Your task to perform on an android device: turn on priority inbox in the gmail app Image 0: 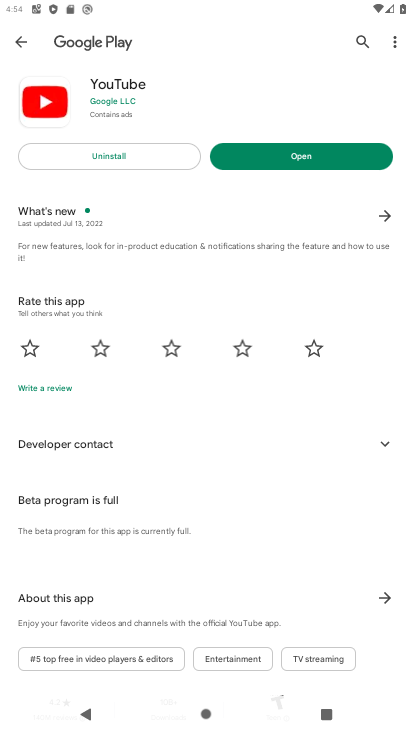
Step 0: press home button
Your task to perform on an android device: turn on priority inbox in the gmail app Image 1: 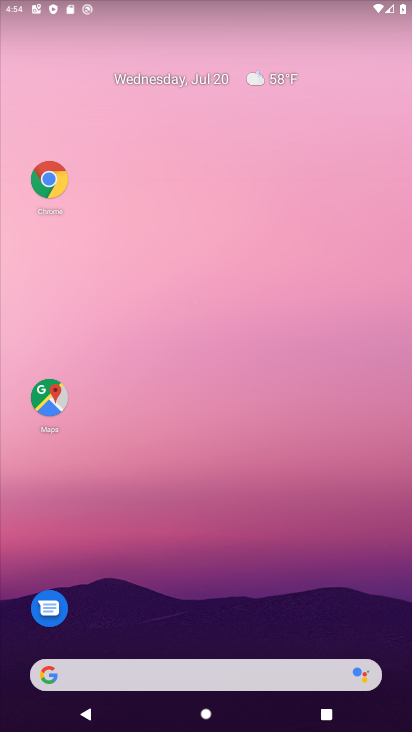
Step 1: drag from (222, 641) to (84, 138)
Your task to perform on an android device: turn on priority inbox in the gmail app Image 2: 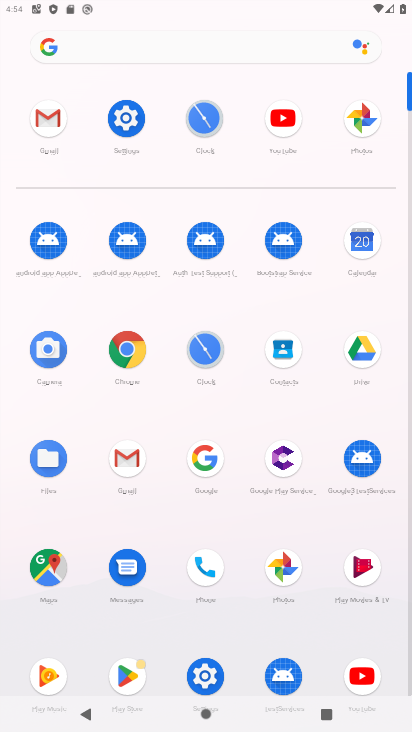
Step 2: click (132, 472)
Your task to perform on an android device: turn on priority inbox in the gmail app Image 3: 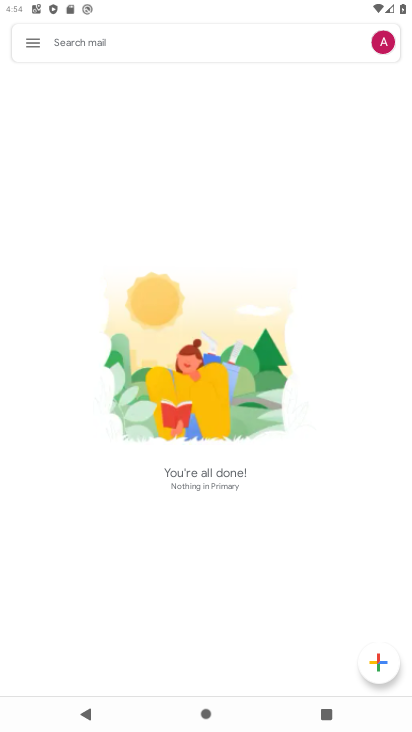
Step 3: click (35, 35)
Your task to perform on an android device: turn on priority inbox in the gmail app Image 4: 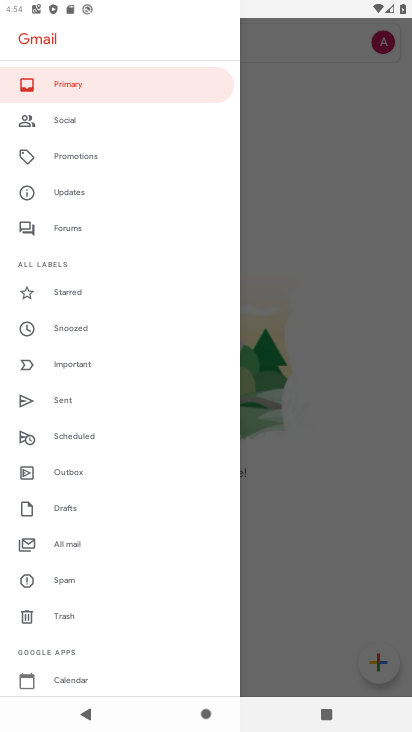
Step 4: drag from (82, 592) to (18, 134)
Your task to perform on an android device: turn on priority inbox in the gmail app Image 5: 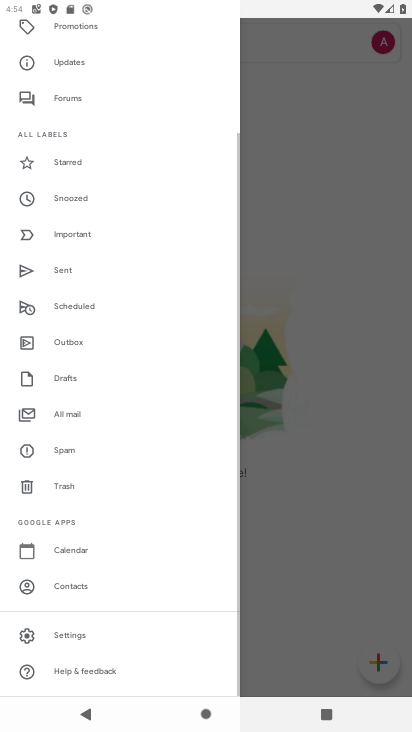
Step 5: click (72, 643)
Your task to perform on an android device: turn on priority inbox in the gmail app Image 6: 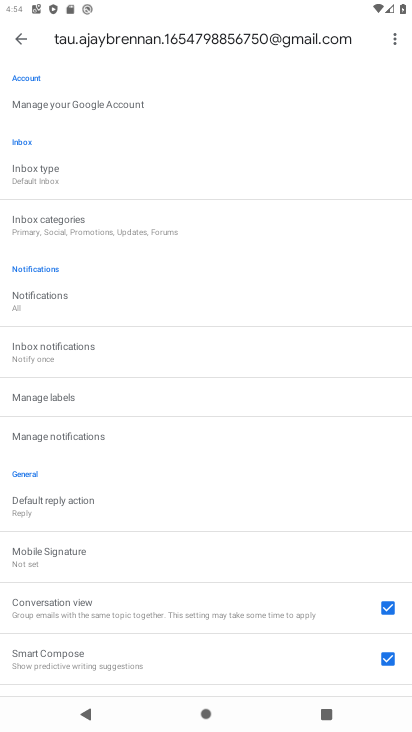
Step 6: drag from (177, 583) to (115, 388)
Your task to perform on an android device: turn on priority inbox in the gmail app Image 7: 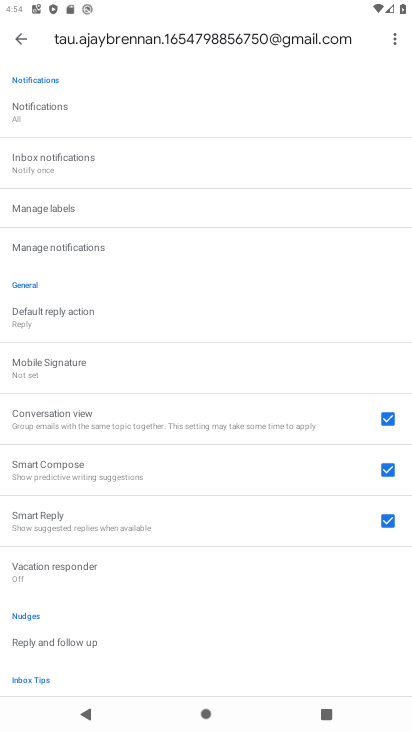
Step 7: drag from (60, 151) to (36, 564)
Your task to perform on an android device: turn on priority inbox in the gmail app Image 8: 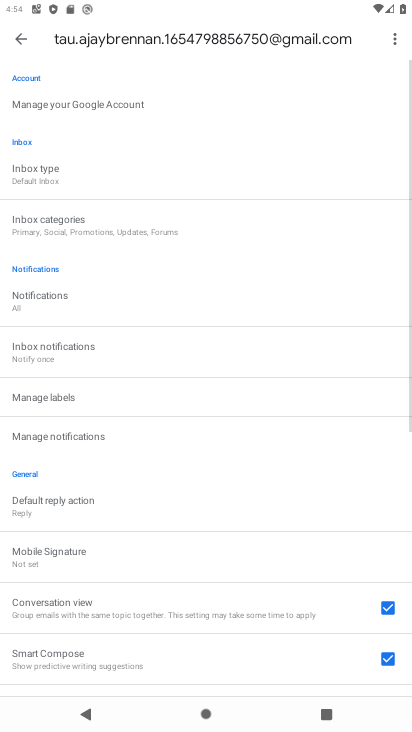
Step 8: click (24, 186)
Your task to perform on an android device: turn on priority inbox in the gmail app Image 9: 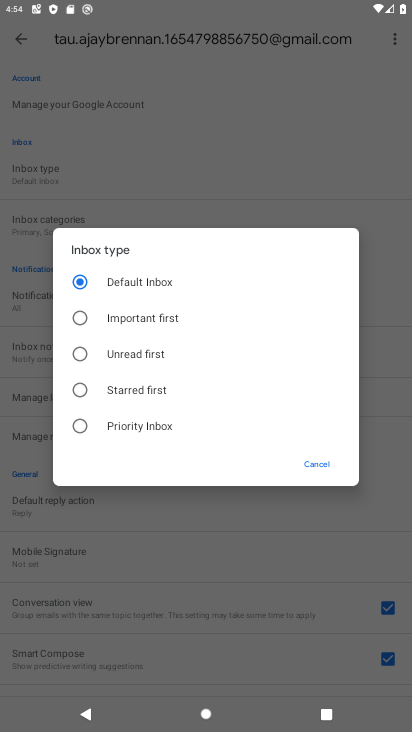
Step 9: click (109, 431)
Your task to perform on an android device: turn on priority inbox in the gmail app Image 10: 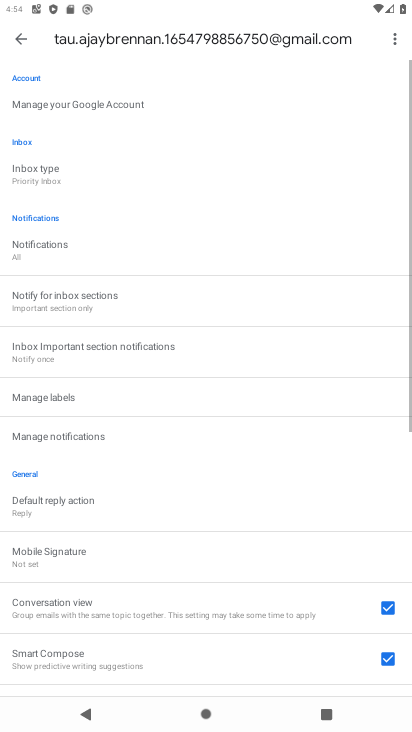
Step 10: task complete